Your task to perform on an android device: turn on notifications settings in the gmail app Image 0: 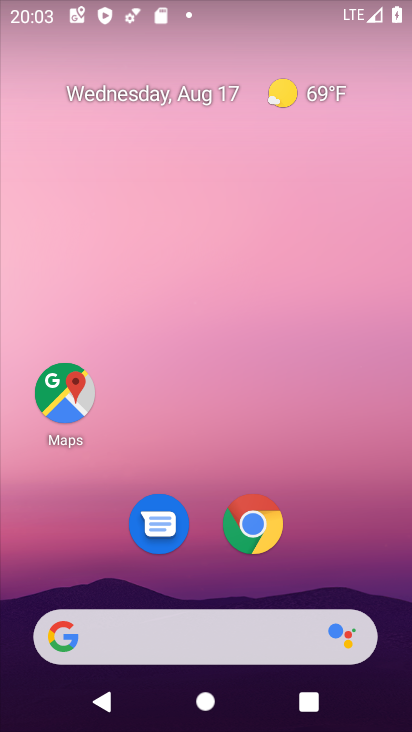
Step 0: drag from (329, 531) to (330, 1)
Your task to perform on an android device: turn on notifications settings in the gmail app Image 1: 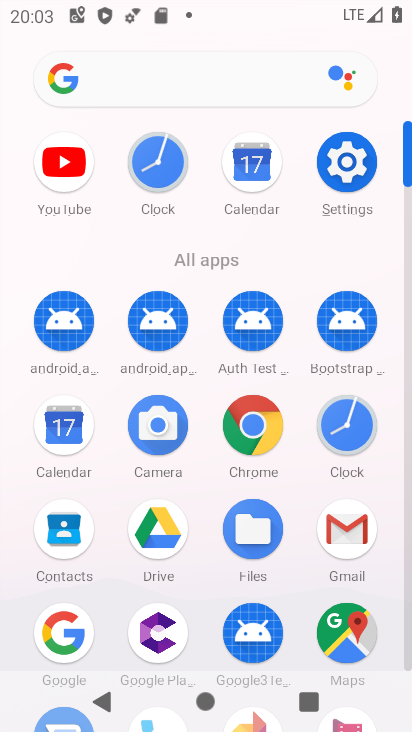
Step 1: click (344, 536)
Your task to perform on an android device: turn on notifications settings in the gmail app Image 2: 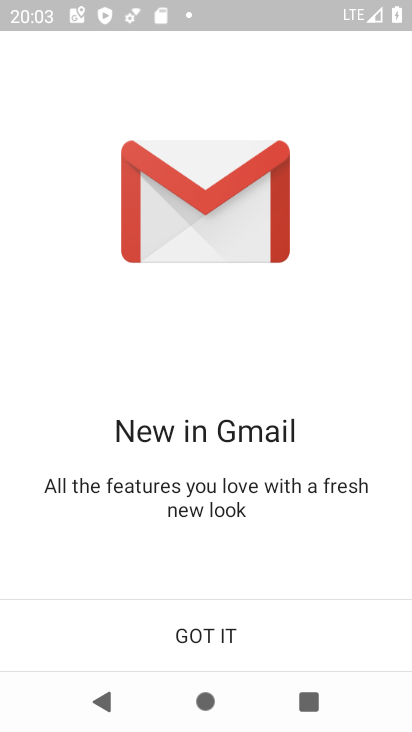
Step 2: click (284, 627)
Your task to perform on an android device: turn on notifications settings in the gmail app Image 3: 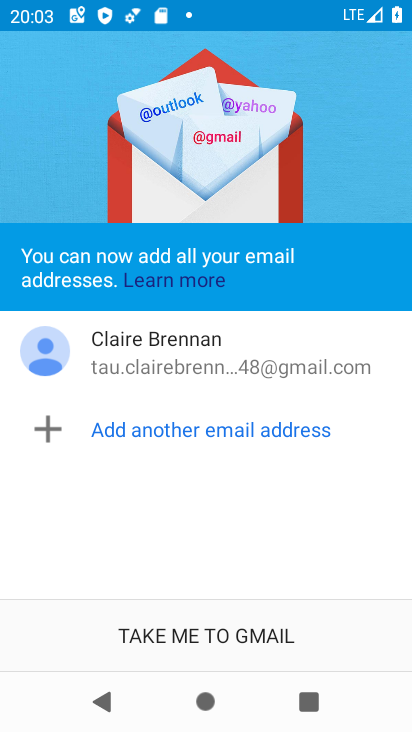
Step 3: click (284, 627)
Your task to perform on an android device: turn on notifications settings in the gmail app Image 4: 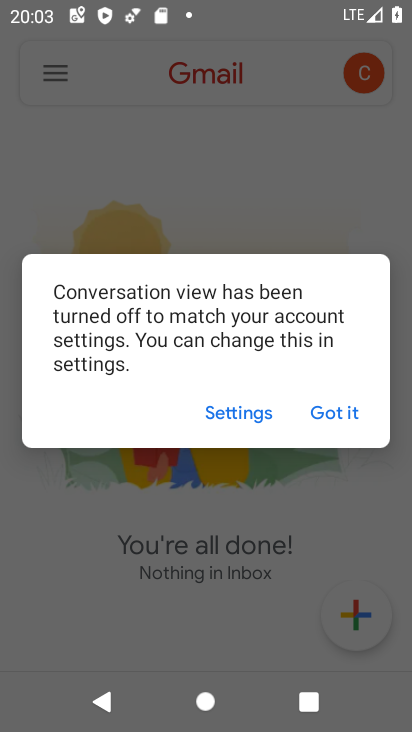
Step 4: click (348, 407)
Your task to perform on an android device: turn on notifications settings in the gmail app Image 5: 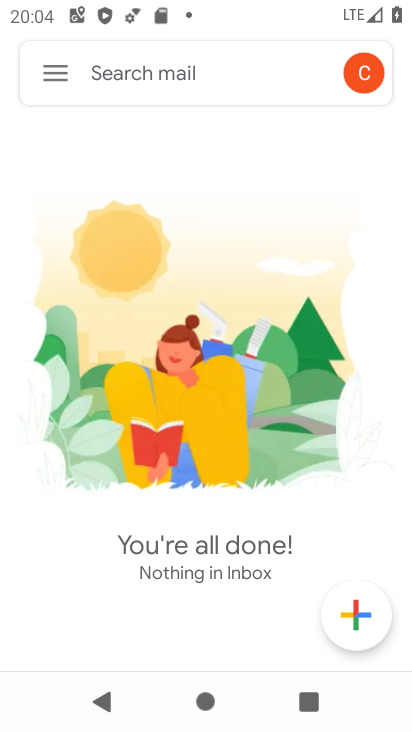
Step 5: click (50, 70)
Your task to perform on an android device: turn on notifications settings in the gmail app Image 6: 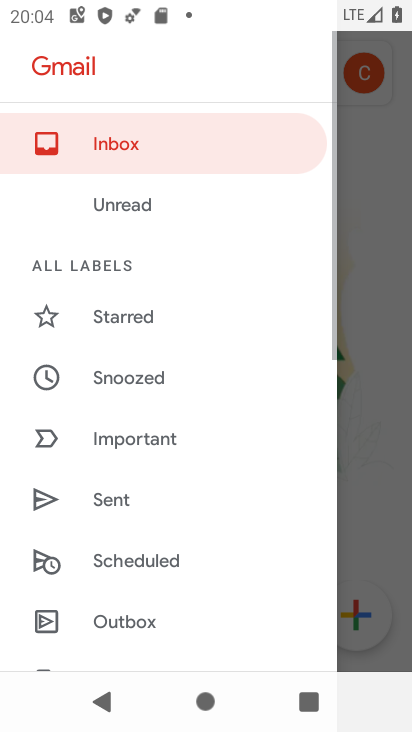
Step 6: drag from (154, 492) to (171, 44)
Your task to perform on an android device: turn on notifications settings in the gmail app Image 7: 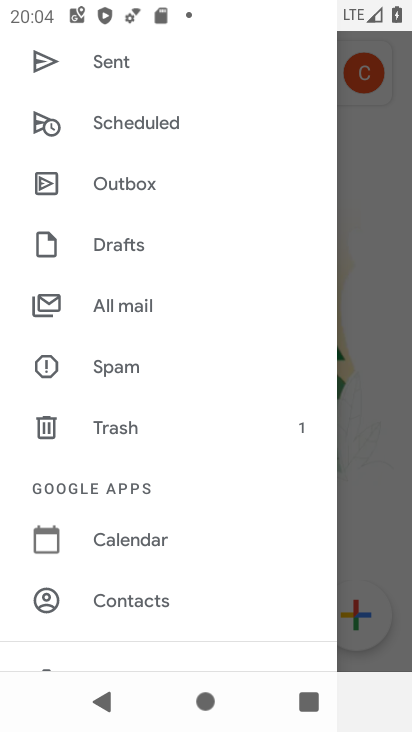
Step 7: drag from (186, 409) to (186, 176)
Your task to perform on an android device: turn on notifications settings in the gmail app Image 8: 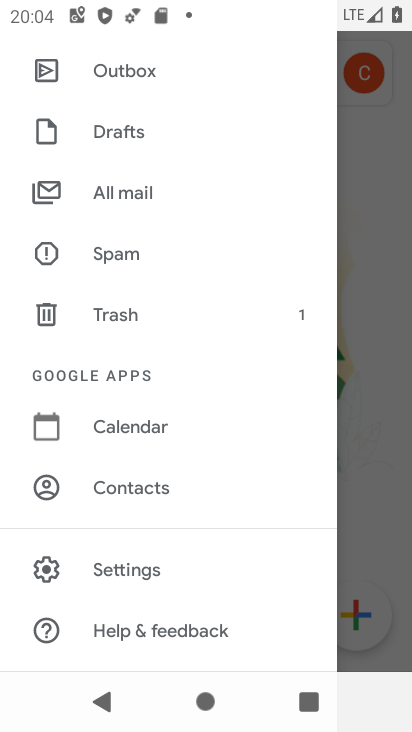
Step 8: click (138, 553)
Your task to perform on an android device: turn on notifications settings in the gmail app Image 9: 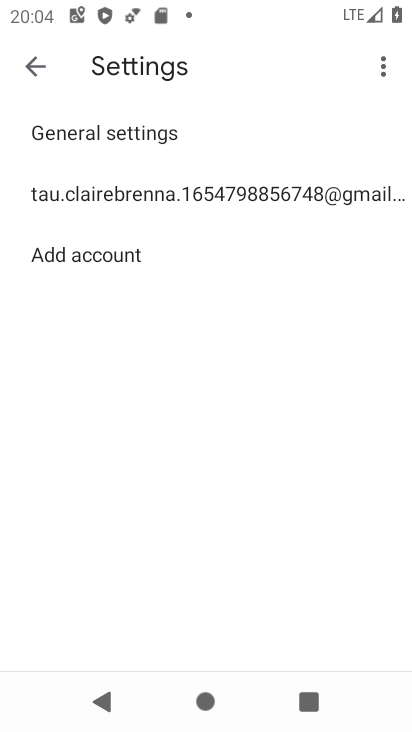
Step 9: click (270, 191)
Your task to perform on an android device: turn on notifications settings in the gmail app Image 10: 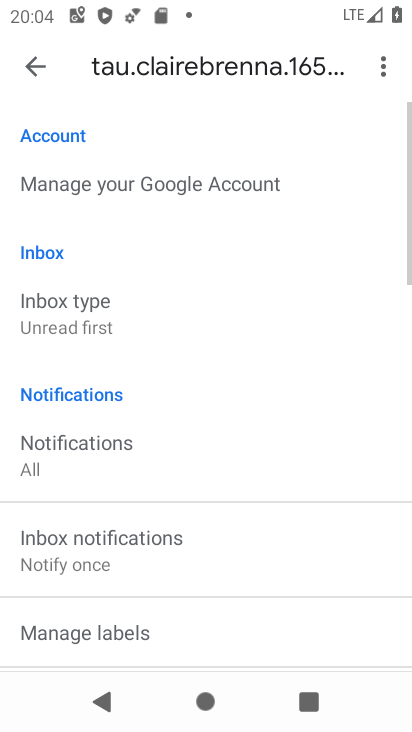
Step 10: drag from (238, 532) to (251, 0)
Your task to perform on an android device: turn on notifications settings in the gmail app Image 11: 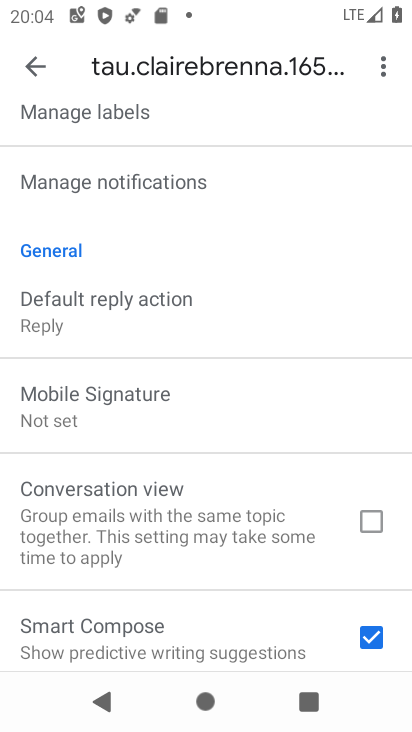
Step 11: click (234, 181)
Your task to perform on an android device: turn on notifications settings in the gmail app Image 12: 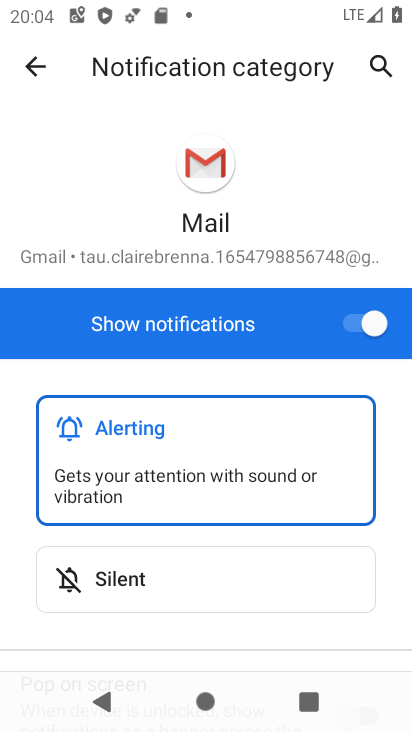
Step 12: task complete